Your task to perform on an android device: Search for sushi restaurants on Maps Image 0: 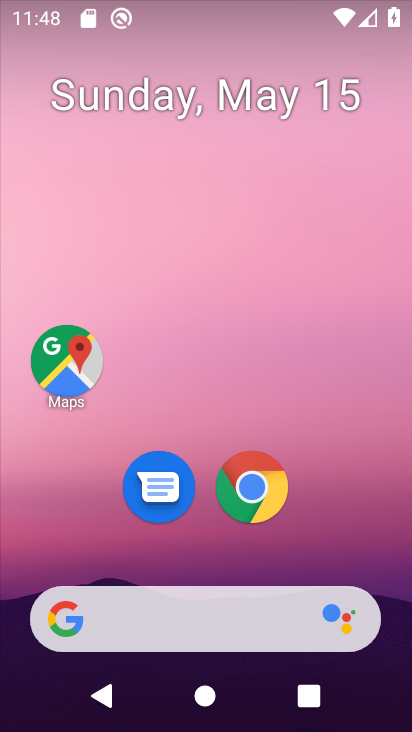
Step 0: drag from (249, 334) to (249, 264)
Your task to perform on an android device: Search for sushi restaurants on Maps Image 1: 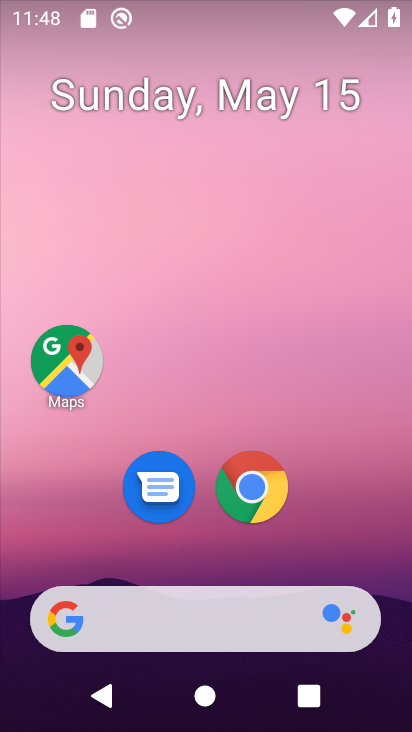
Step 1: drag from (201, 655) to (205, 273)
Your task to perform on an android device: Search for sushi restaurants on Maps Image 2: 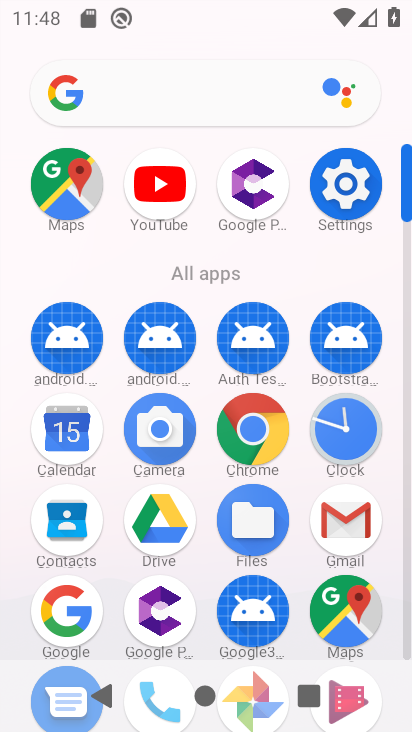
Step 2: click (353, 619)
Your task to perform on an android device: Search for sushi restaurants on Maps Image 3: 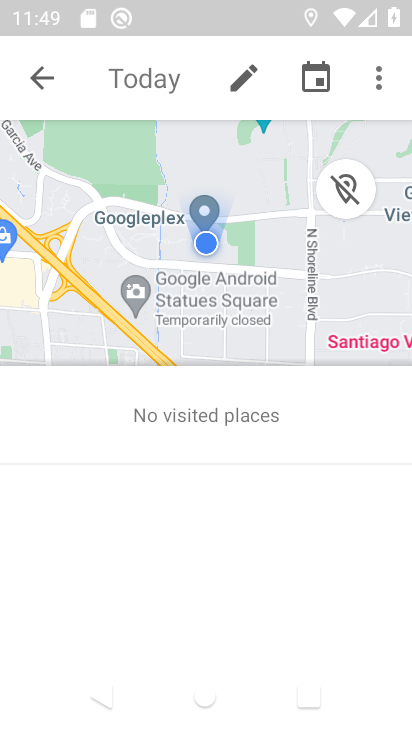
Step 3: click (52, 69)
Your task to perform on an android device: Search for sushi restaurants on Maps Image 4: 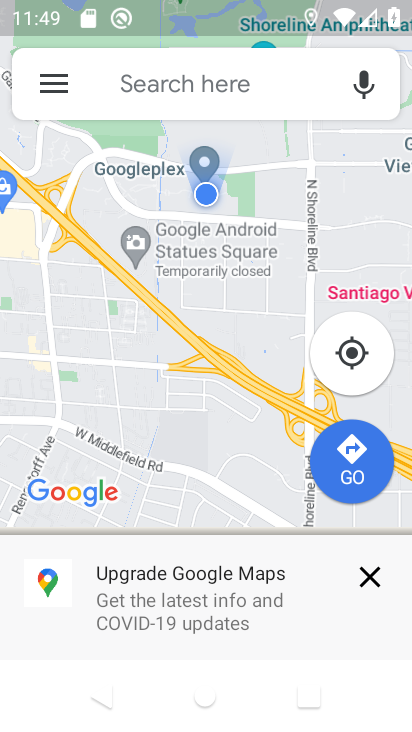
Step 4: click (144, 81)
Your task to perform on an android device: Search for sushi restaurants on Maps Image 5: 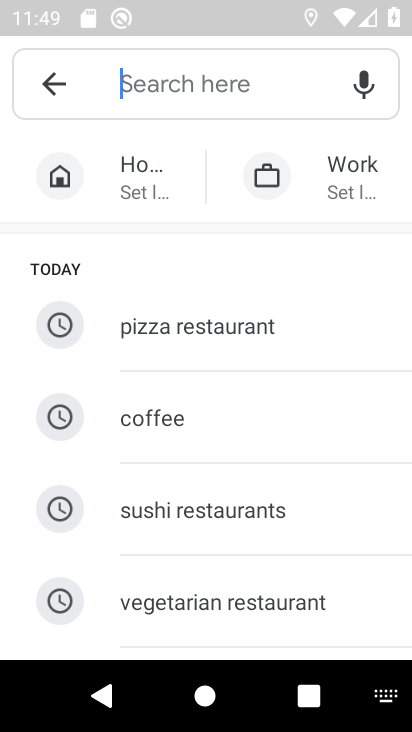
Step 5: click (213, 518)
Your task to perform on an android device: Search for sushi restaurants on Maps Image 6: 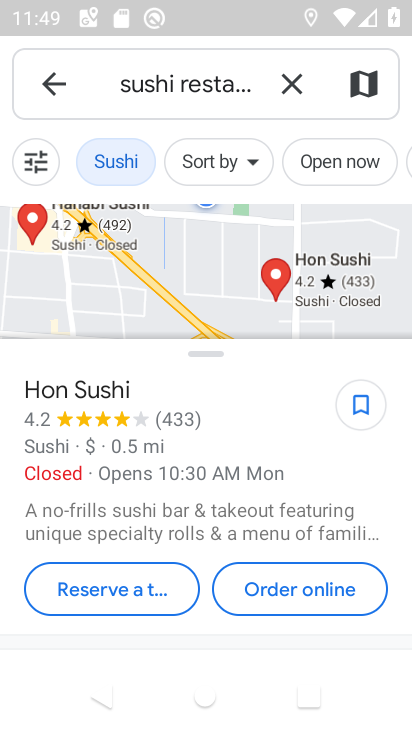
Step 6: task complete